Your task to perform on an android device: Open Maps and search for coffee Image 0: 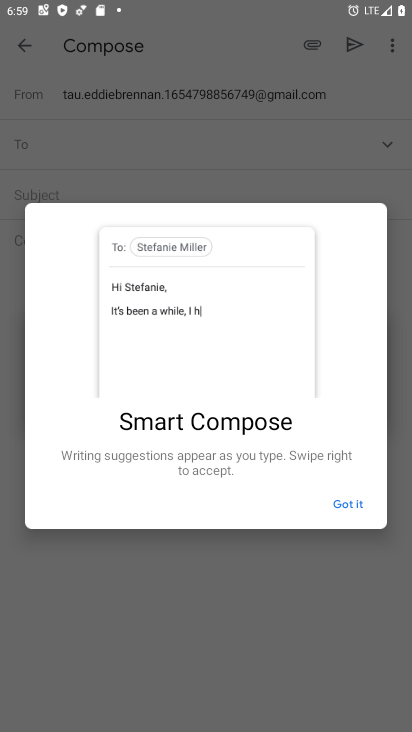
Step 0: press home button
Your task to perform on an android device: Open Maps and search for coffee Image 1: 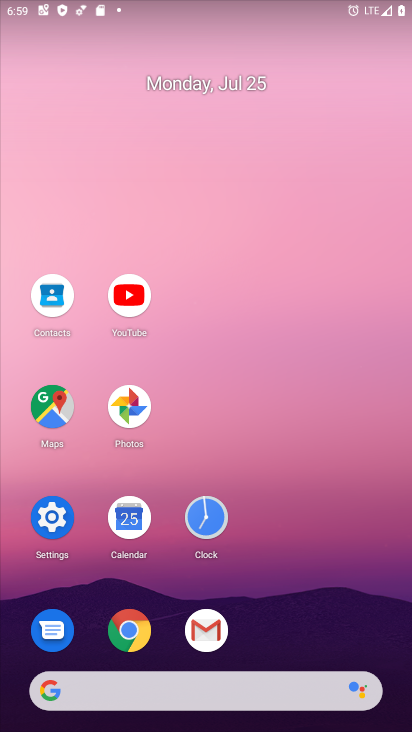
Step 1: click (50, 413)
Your task to perform on an android device: Open Maps and search for coffee Image 2: 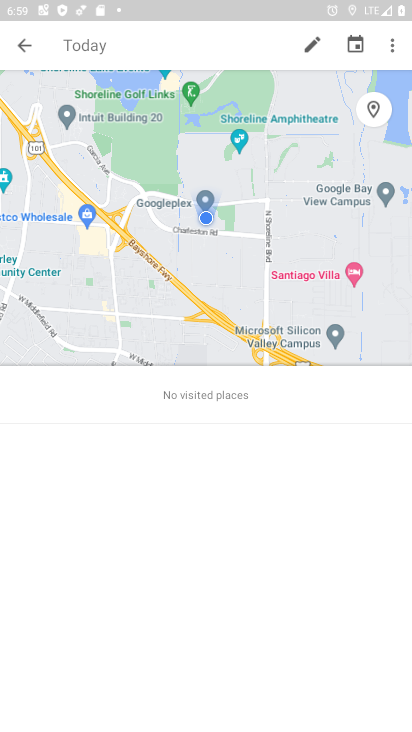
Step 2: click (85, 36)
Your task to perform on an android device: Open Maps and search for coffee Image 3: 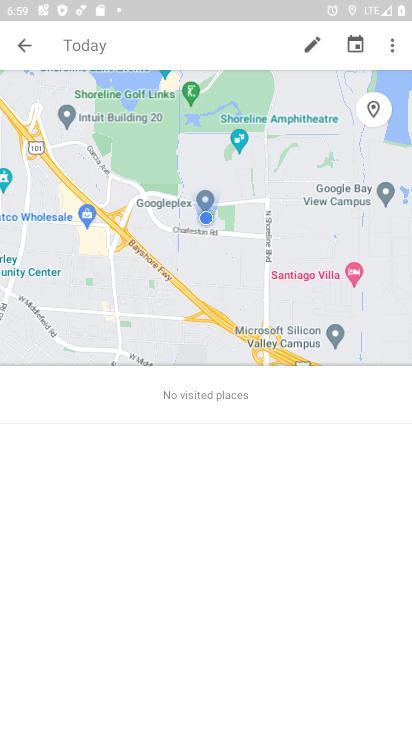
Step 3: click (26, 45)
Your task to perform on an android device: Open Maps and search for coffee Image 4: 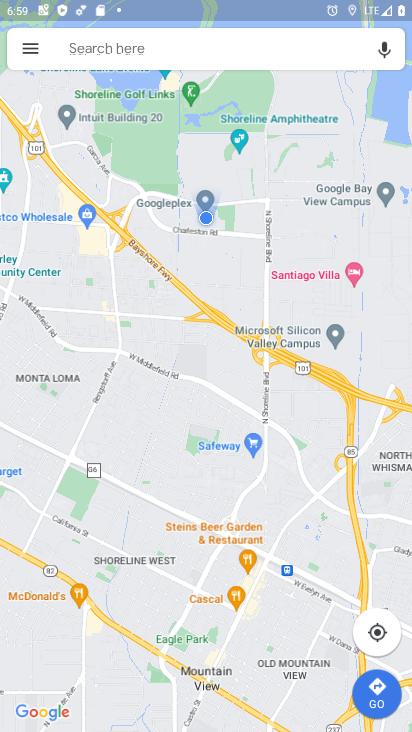
Step 4: click (170, 44)
Your task to perform on an android device: Open Maps and search for coffee Image 5: 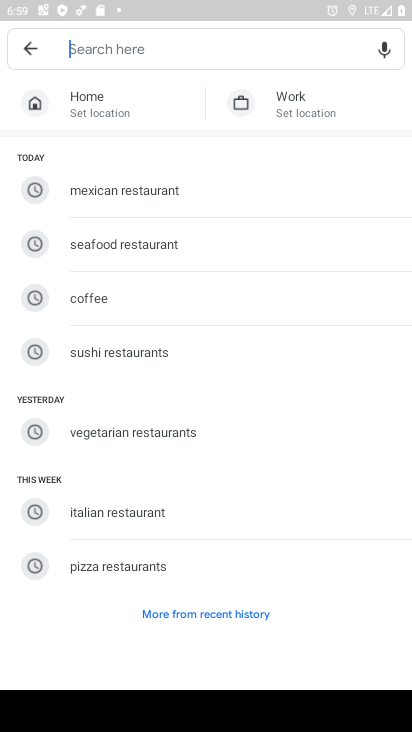
Step 5: click (84, 297)
Your task to perform on an android device: Open Maps and search for coffee Image 6: 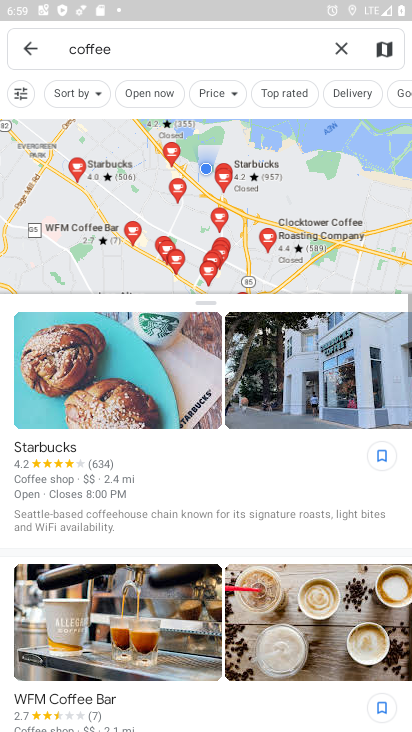
Step 6: task complete